Your task to perform on an android device: open chrome privacy settings Image 0: 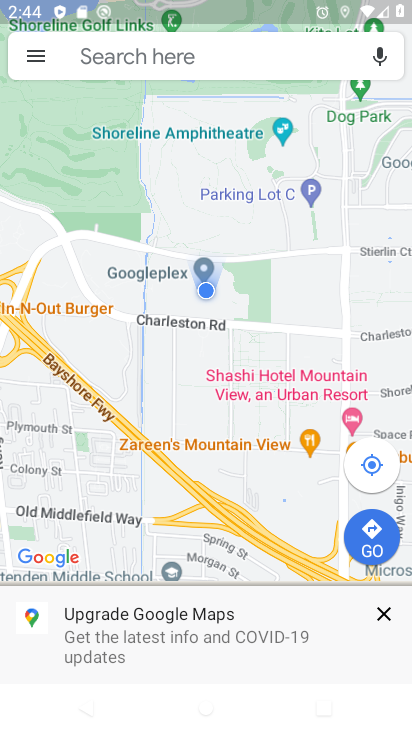
Step 0: press home button
Your task to perform on an android device: open chrome privacy settings Image 1: 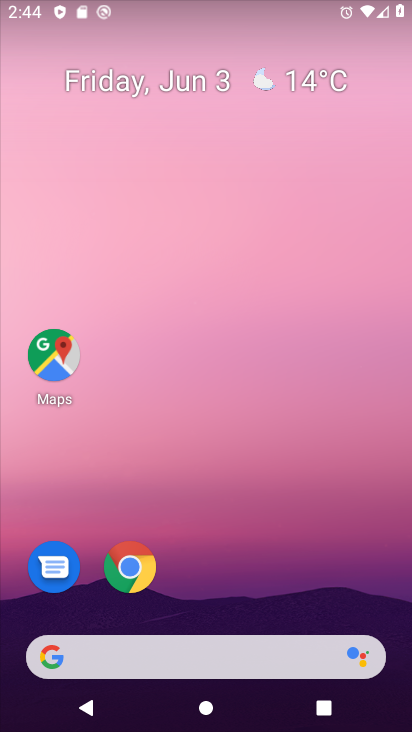
Step 1: drag from (227, 596) to (99, 123)
Your task to perform on an android device: open chrome privacy settings Image 2: 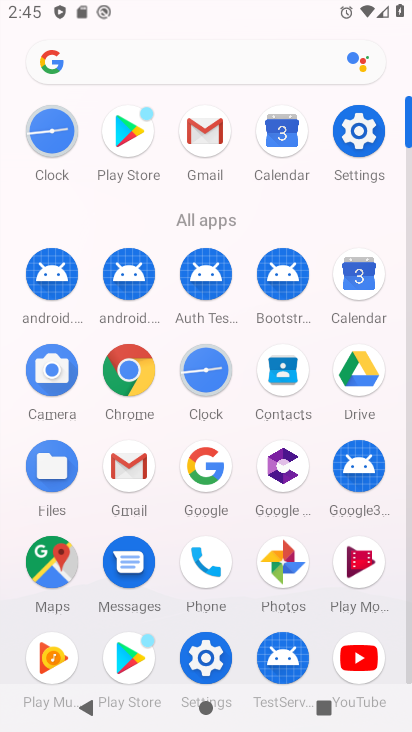
Step 2: click (108, 385)
Your task to perform on an android device: open chrome privacy settings Image 3: 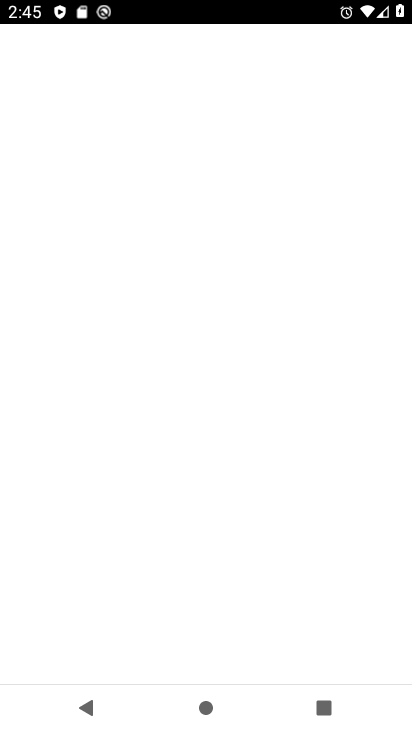
Step 3: click (122, 376)
Your task to perform on an android device: open chrome privacy settings Image 4: 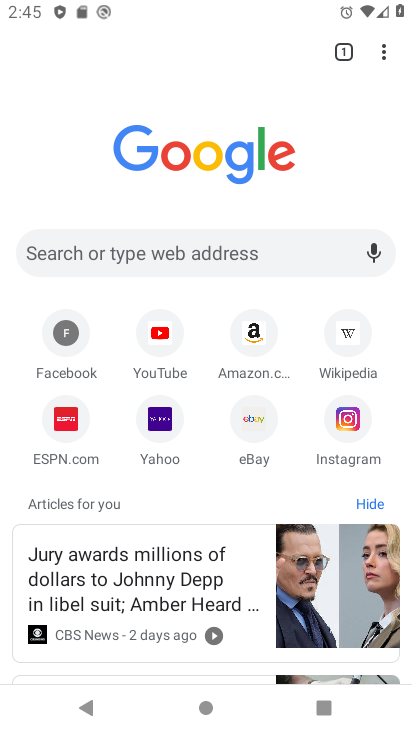
Step 4: click (382, 45)
Your task to perform on an android device: open chrome privacy settings Image 5: 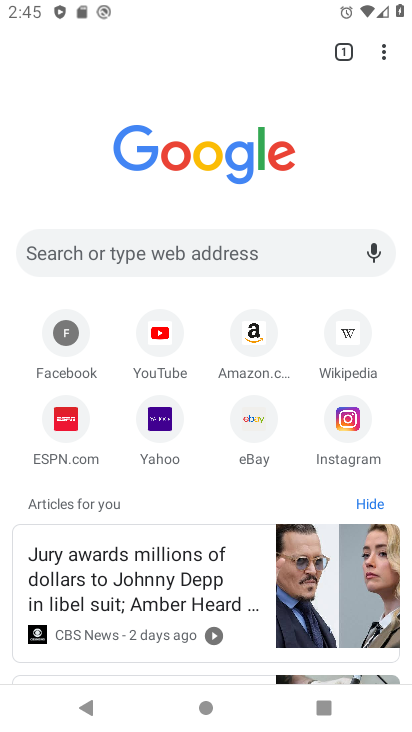
Step 5: click (388, 61)
Your task to perform on an android device: open chrome privacy settings Image 6: 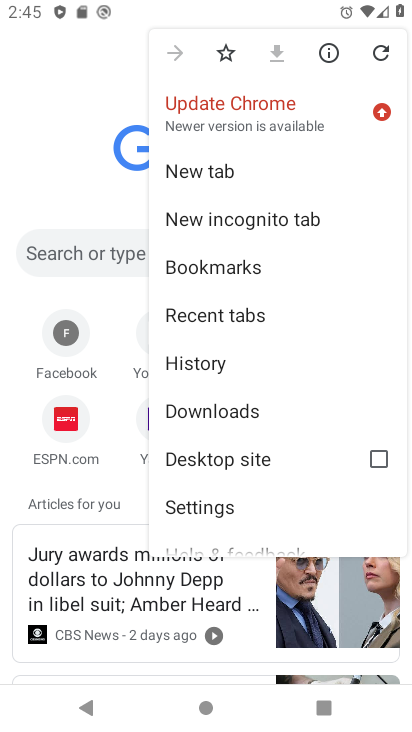
Step 6: click (179, 504)
Your task to perform on an android device: open chrome privacy settings Image 7: 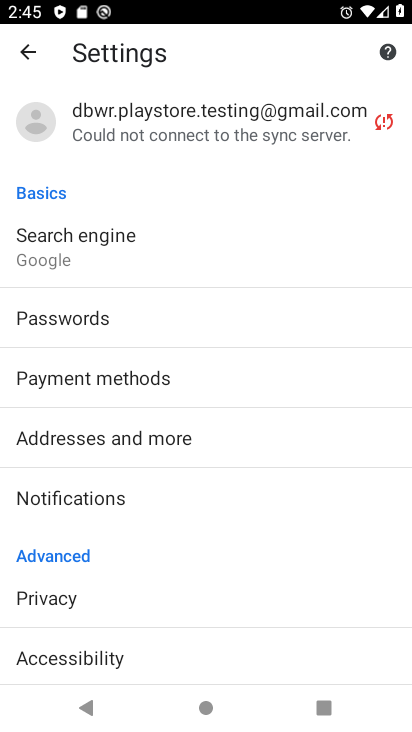
Step 7: click (70, 607)
Your task to perform on an android device: open chrome privacy settings Image 8: 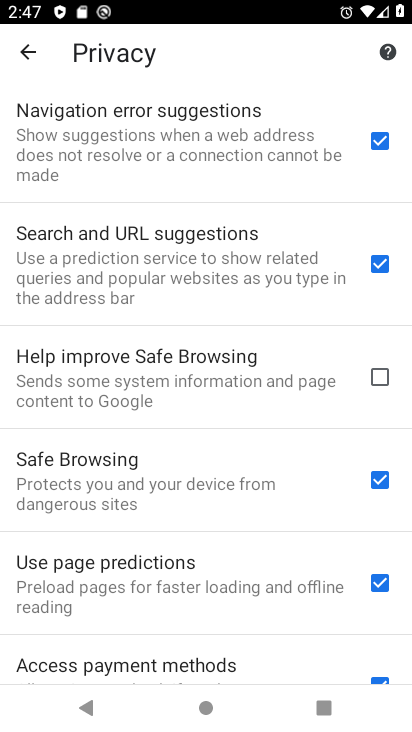
Step 8: task complete